Your task to perform on an android device: Go to display settings Image 0: 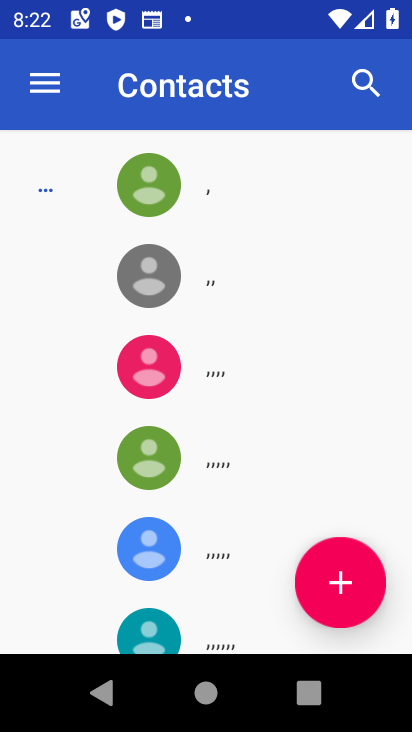
Step 0: press home button
Your task to perform on an android device: Go to display settings Image 1: 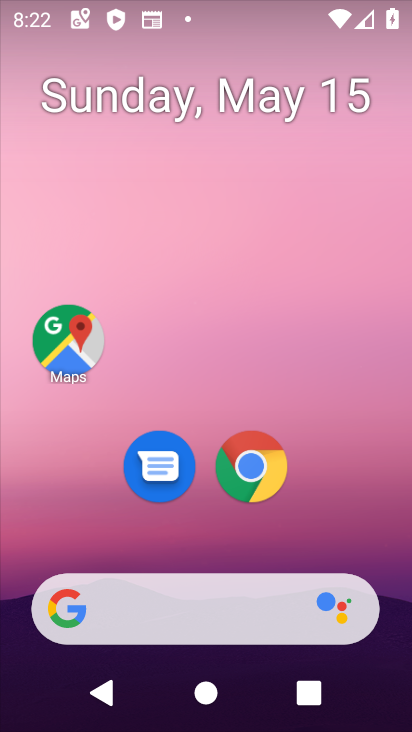
Step 1: drag from (202, 577) to (387, 78)
Your task to perform on an android device: Go to display settings Image 2: 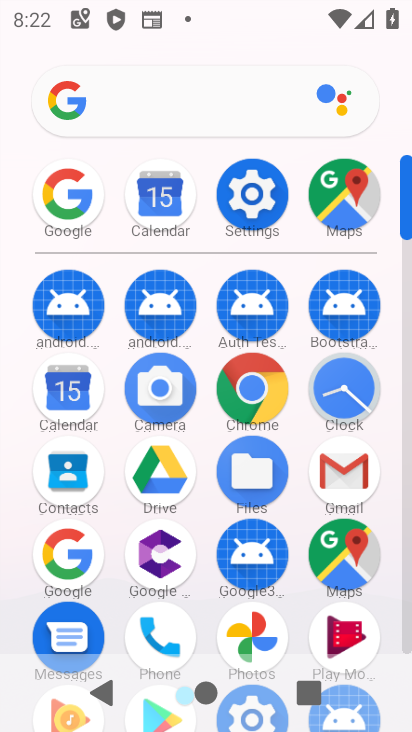
Step 2: click (246, 198)
Your task to perform on an android device: Go to display settings Image 3: 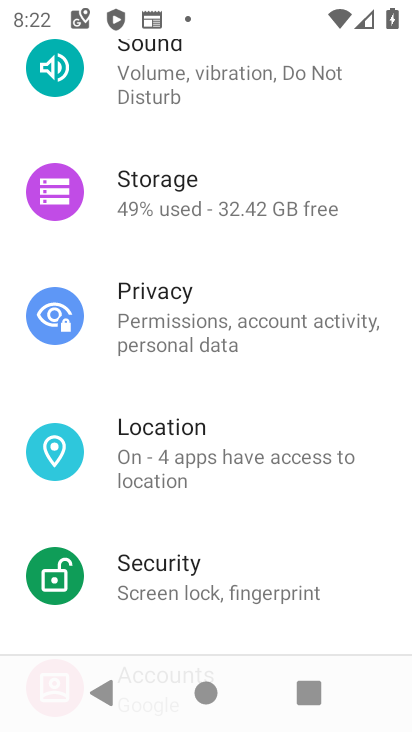
Step 3: drag from (195, 198) to (164, 730)
Your task to perform on an android device: Go to display settings Image 4: 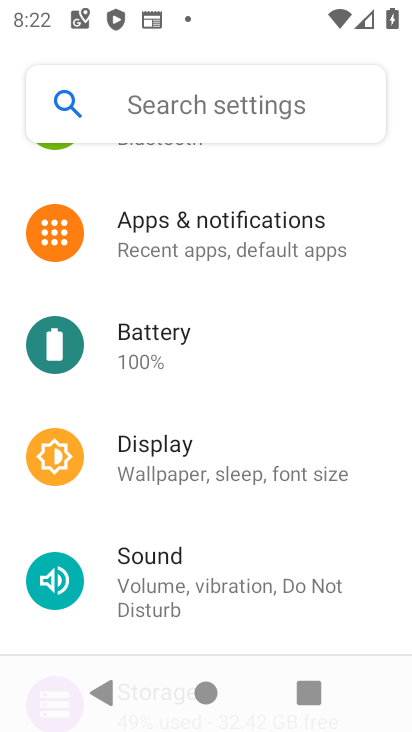
Step 4: click (176, 443)
Your task to perform on an android device: Go to display settings Image 5: 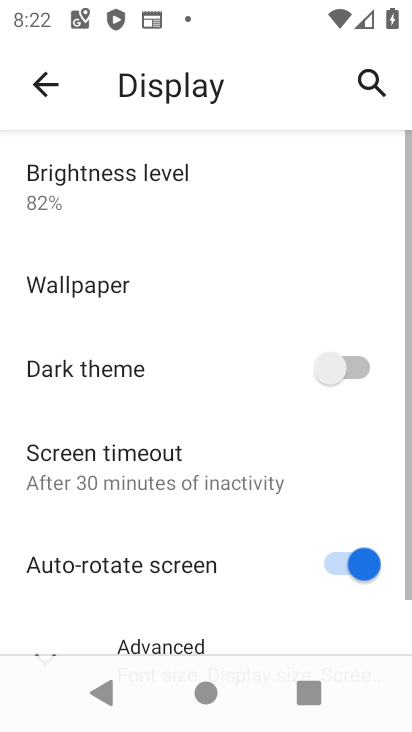
Step 5: task complete